Your task to perform on an android device: Open calendar and show me the fourth week of next month Image 0: 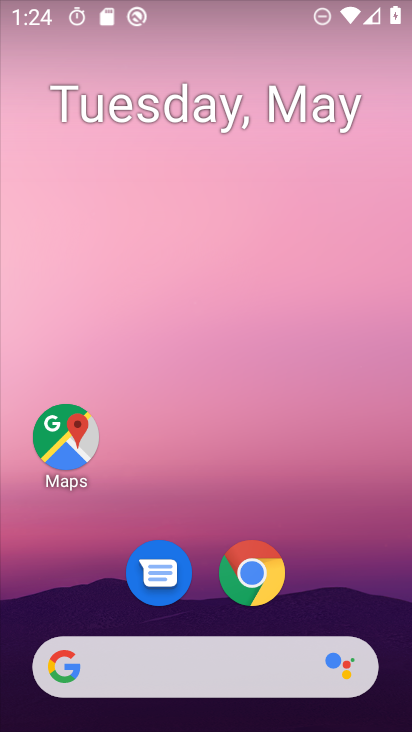
Step 0: drag from (358, 558) to (307, 9)
Your task to perform on an android device: Open calendar and show me the fourth week of next month Image 1: 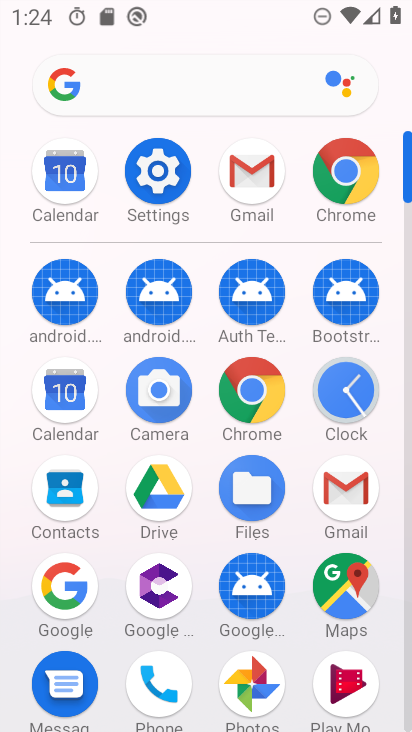
Step 1: click (76, 401)
Your task to perform on an android device: Open calendar and show me the fourth week of next month Image 2: 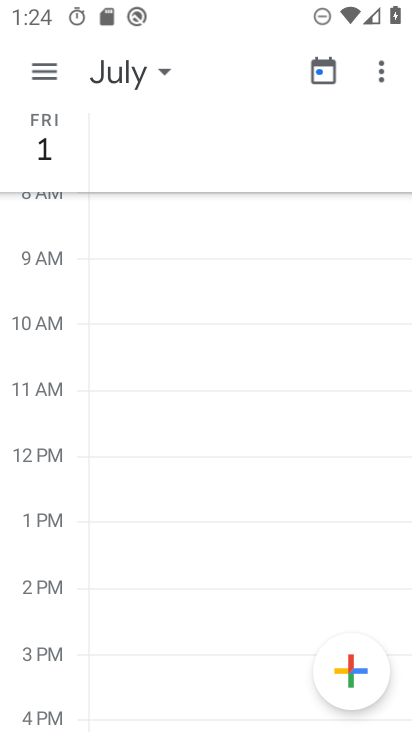
Step 2: click (151, 91)
Your task to perform on an android device: Open calendar and show me the fourth week of next month Image 3: 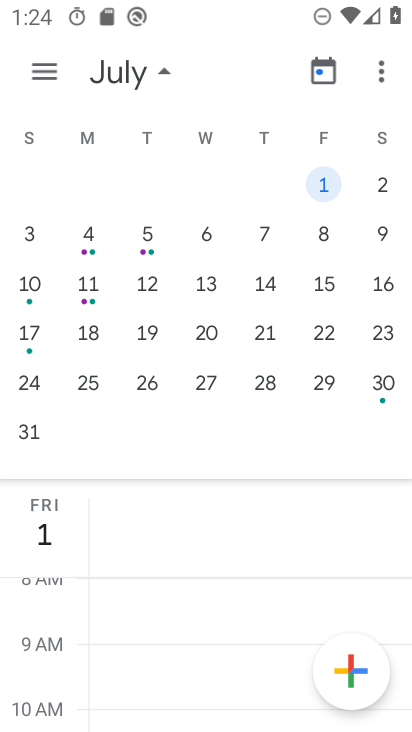
Step 3: drag from (358, 271) to (0, 231)
Your task to perform on an android device: Open calendar and show me the fourth week of next month Image 4: 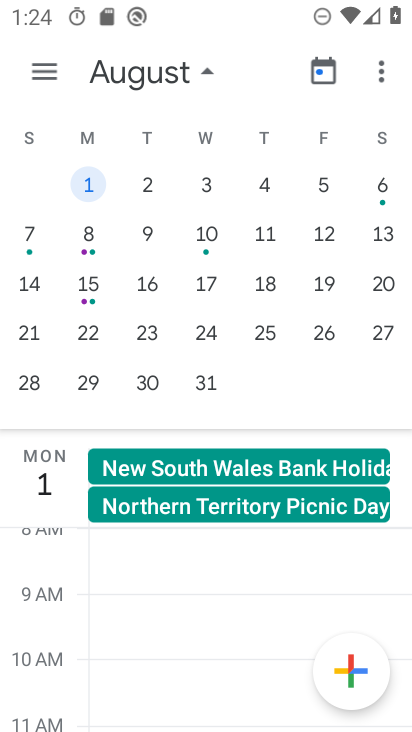
Step 4: click (39, 388)
Your task to perform on an android device: Open calendar and show me the fourth week of next month Image 5: 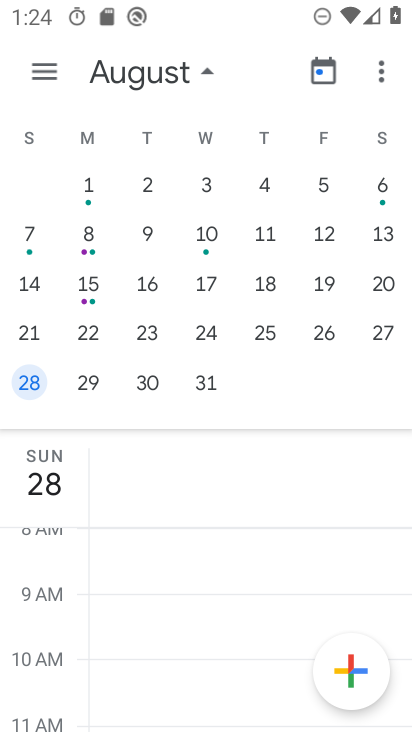
Step 5: task complete